Your task to perform on an android device: Open settings on Google Maps Image 0: 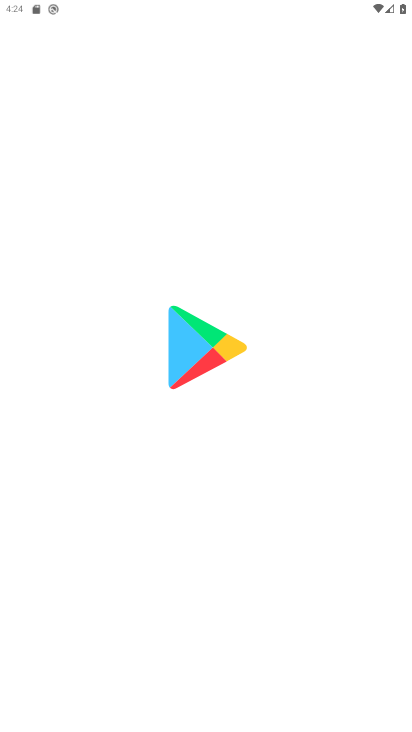
Step 0: drag from (212, 726) to (212, 249)
Your task to perform on an android device: Open settings on Google Maps Image 1: 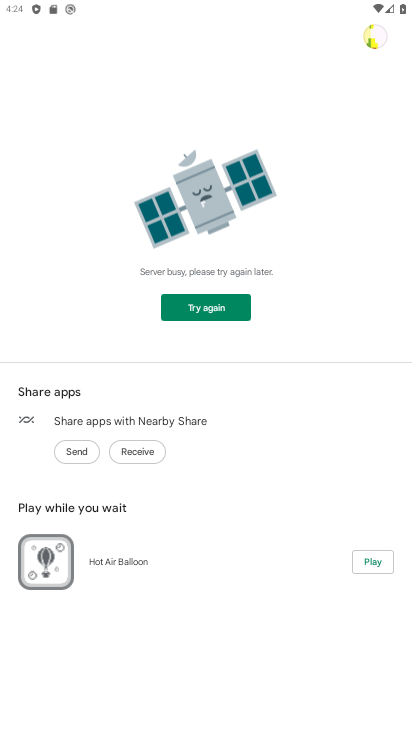
Step 1: press home button
Your task to perform on an android device: Open settings on Google Maps Image 2: 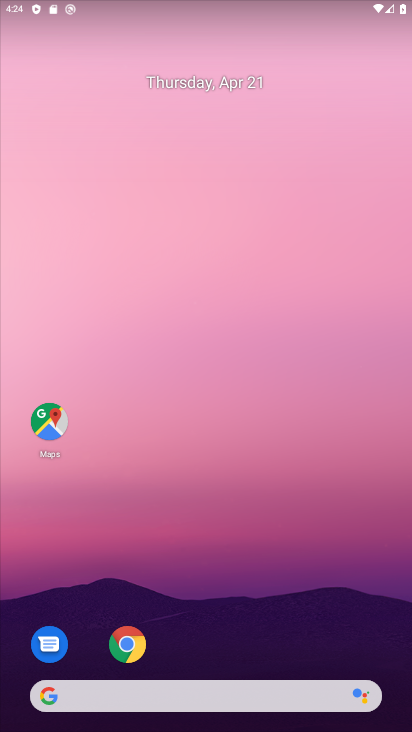
Step 2: drag from (214, 674) to (200, 267)
Your task to perform on an android device: Open settings on Google Maps Image 3: 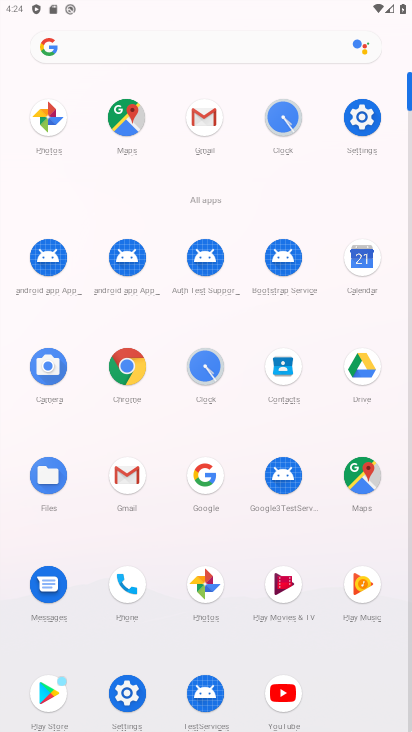
Step 3: click (362, 474)
Your task to perform on an android device: Open settings on Google Maps Image 4: 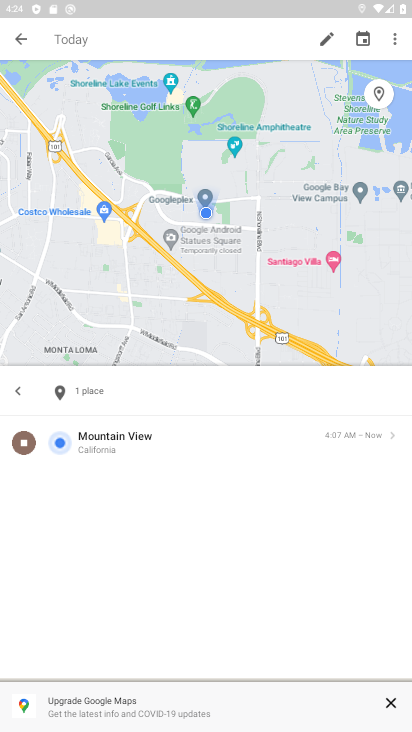
Step 4: click (22, 37)
Your task to perform on an android device: Open settings on Google Maps Image 5: 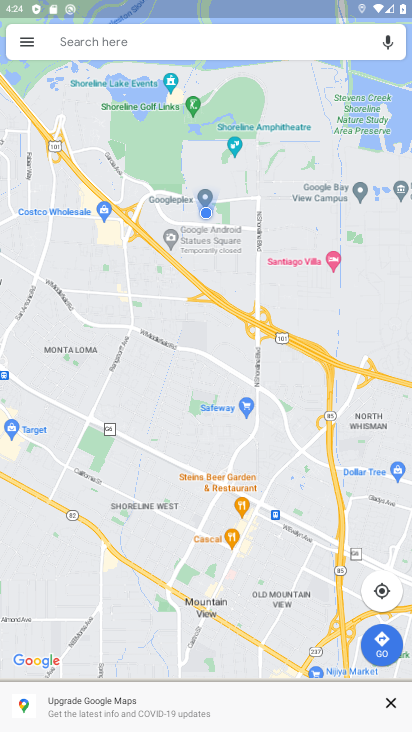
Step 5: click (26, 42)
Your task to perform on an android device: Open settings on Google Maps Image 6: 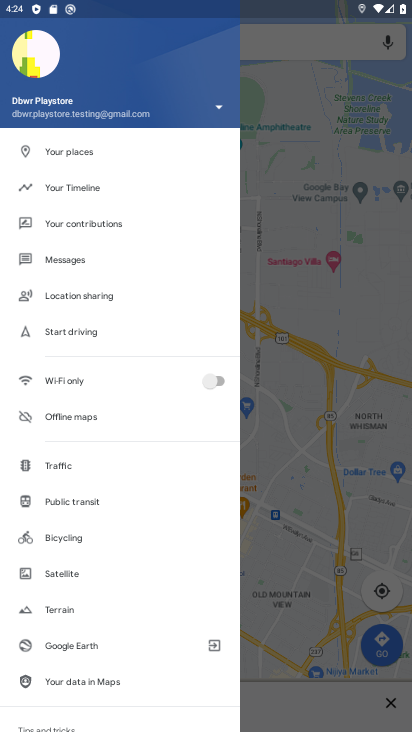
Step 6: drag from (68, 620) to (73, 252)
Your task to perform on an android device: Open settings on Google Maps Image 7: 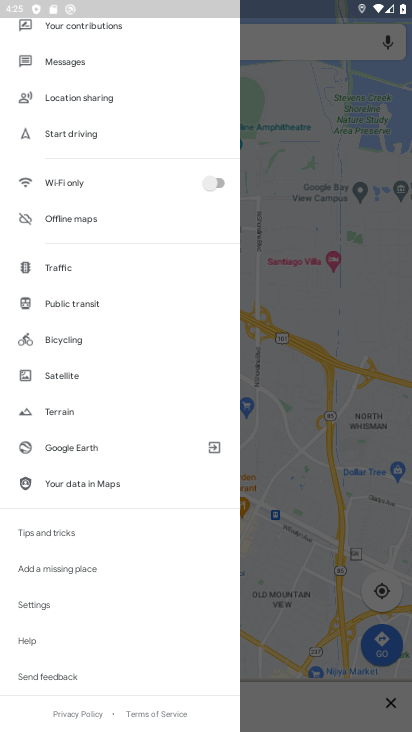
Step 7: click (40, 604)
Your task to perform on an android device: Open settings on Google Maps Image 8: 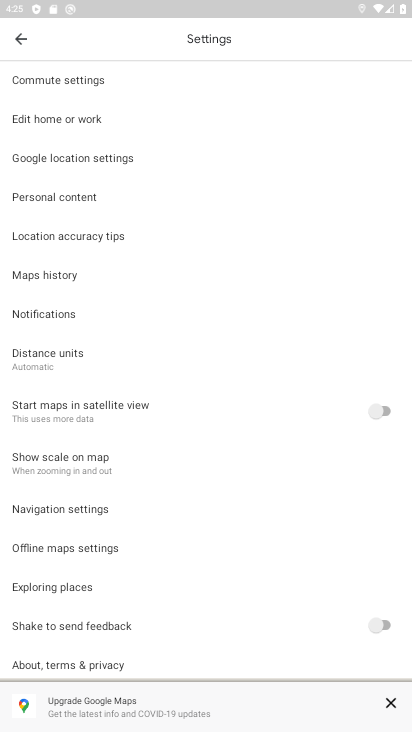
Step 8: task complete